Your task to perform on an android device: Go to location settings Image 0: 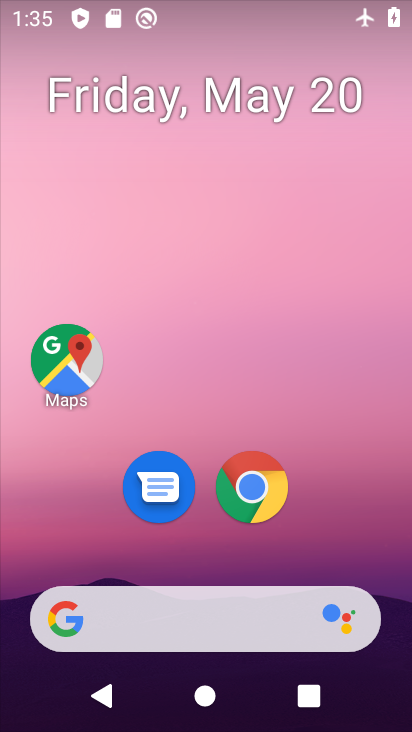
Step 0: drag from (351, 543) to (353, 104)
Your task to perform on an android device: Go to location settings Image 1: 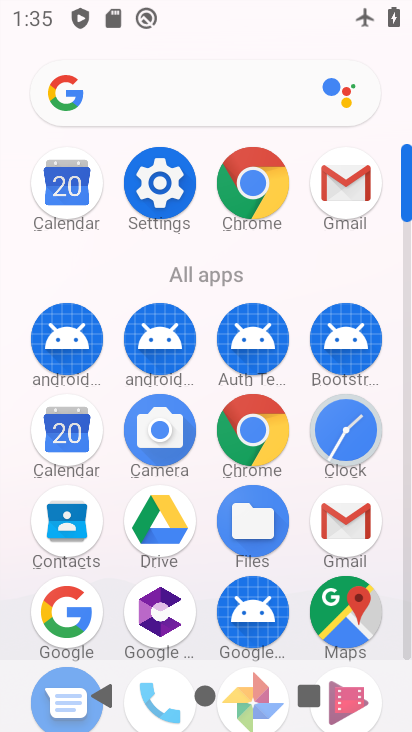
Step 1: click (161, 211)
Your task to perform on an android device: Go to location settings Image 2: 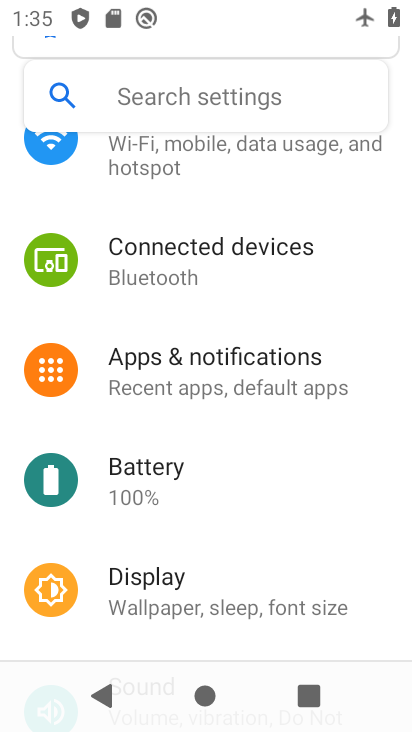
Step 2: drag from (203, 558) to (283, 117)
Your task to perform on an android device: Go to location settings Image 3: 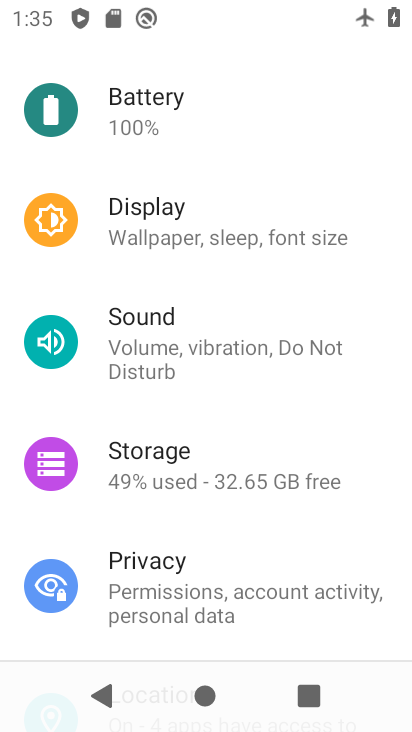
Step 3: drag from (225, 541) to (254, 151)
Your task to perform on an android device: Go to location settings Image 4: 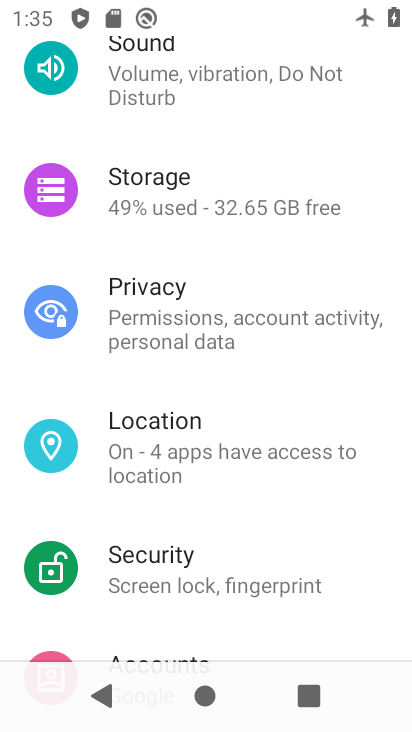
Step 4: click (157, 438)
Your task to perform on an android device: Go to location settings Image 5: 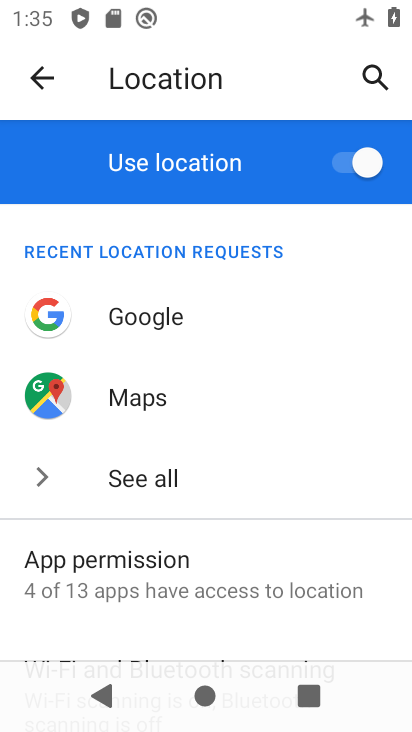
Step 5: task complete